Your task to perform on an android device: turn on airplane mode Image 0: 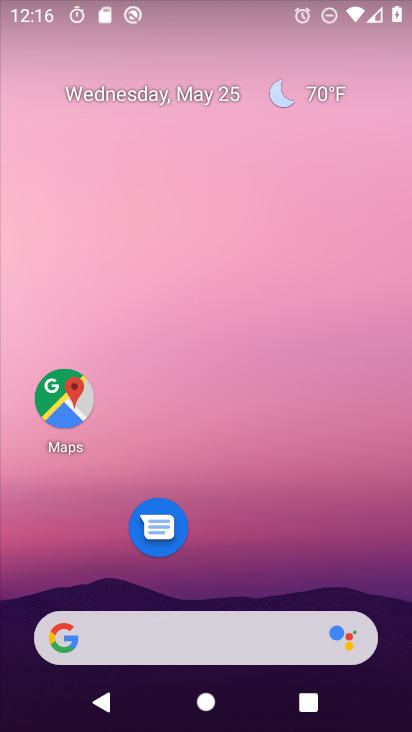
Step 0: drag from (223, 555) to (258, 81)
Your task to perform on an android device: turn on airplane mode Image 1: 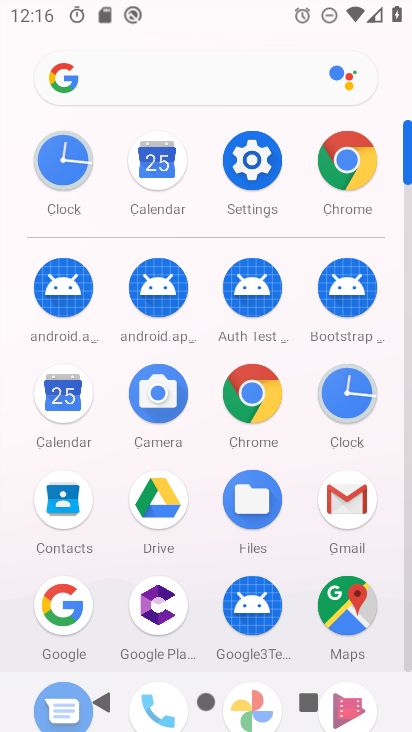
Step 1: click (256, 163)
Your task to perform on an android device: turn on airplane mode Image 2: 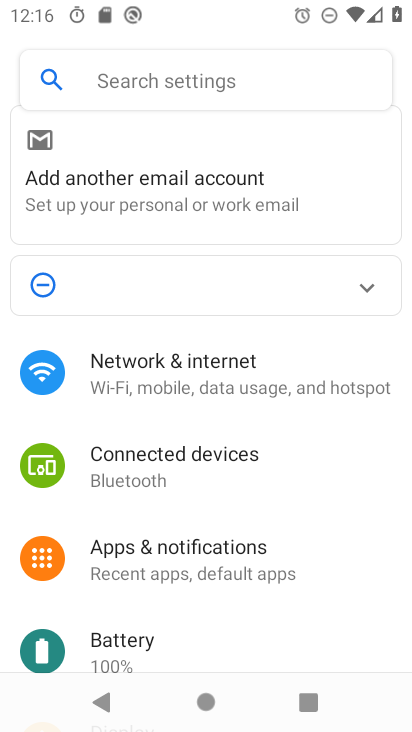
Step 2: click (229, 378)
Your task to perform on an android device: turn on airplane mode Image 3: 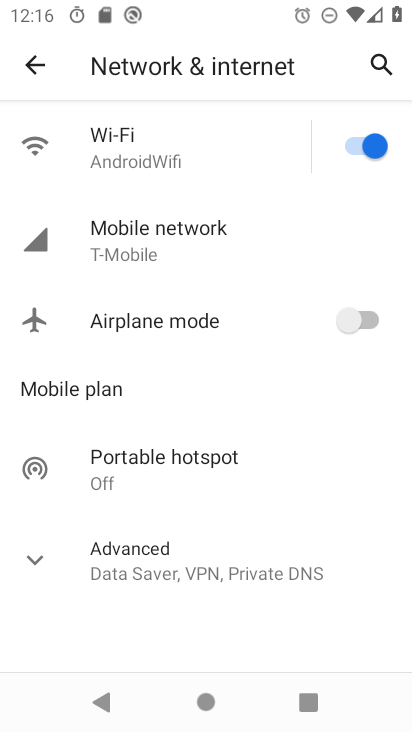
Step 3: click (362, 319)
Your task to perform on an android device: turn on airplane mode Image 4: 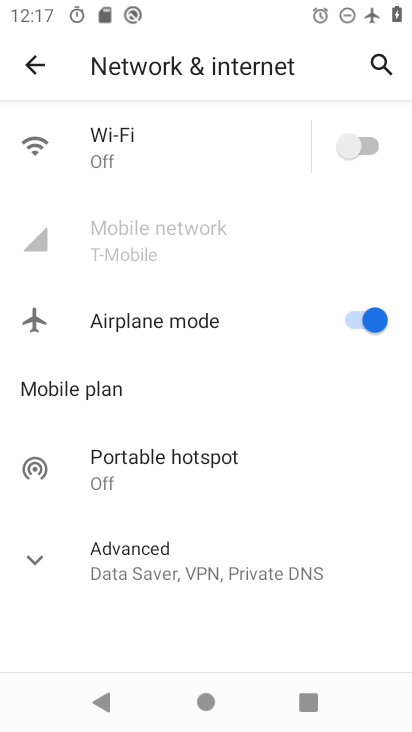
Step 4: task complete